Your task to perform on an android device: turn off improve location accuracy Image 0: 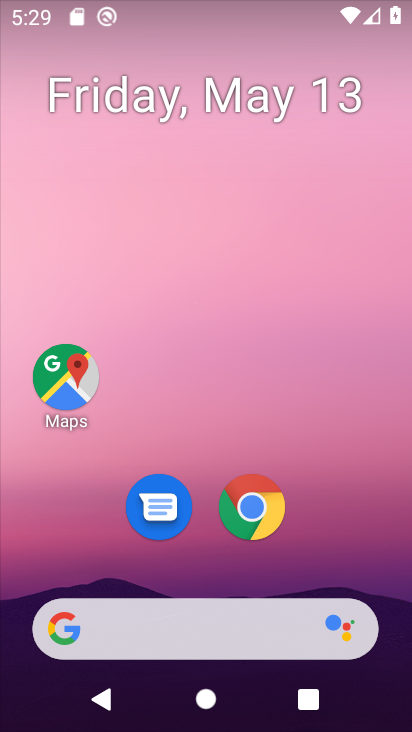
Step 0: drag from (317, 531) to (183, 87)
Your task to perform on an android device: turn off improve location accuracy Image 1: 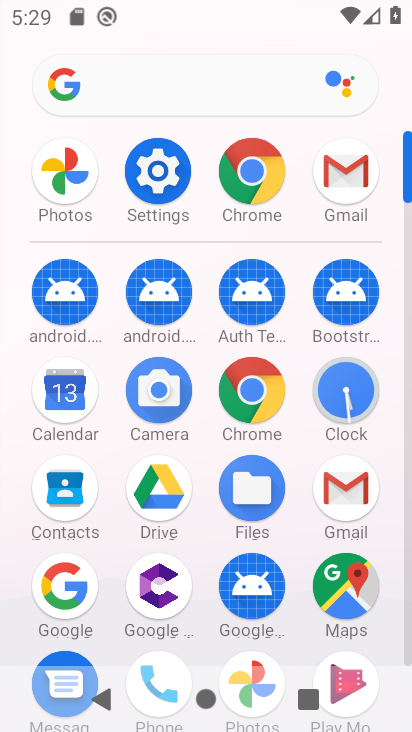
Step 1: click (159, 166)
Your task to perform on an android device: turn off improve location accuracy Image 2: 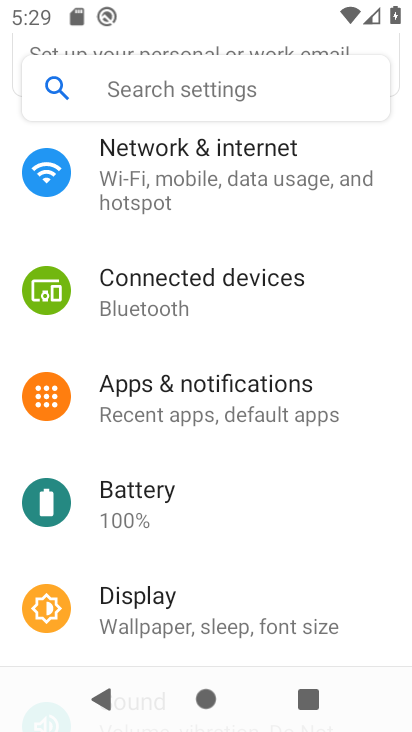
Step 2: drag from (232, 578) to (262, 125)
Your task to perform on an android device: turn off improve location accuracy Image 3: 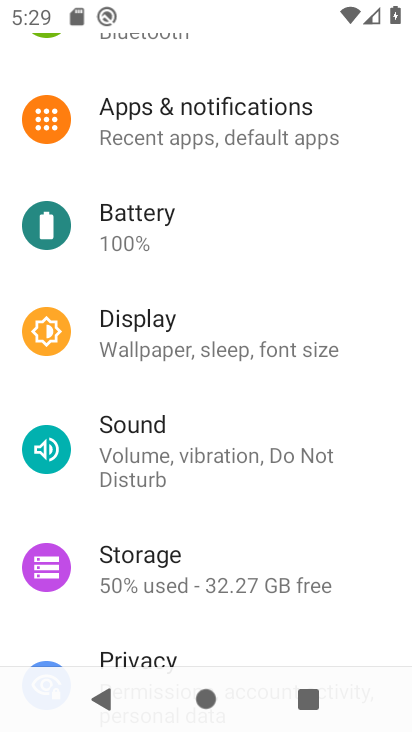
Step 3: drag from (224, 501) to (203, 138)
Your task to perform on an android device: turn off improve location accuracy Image 4: 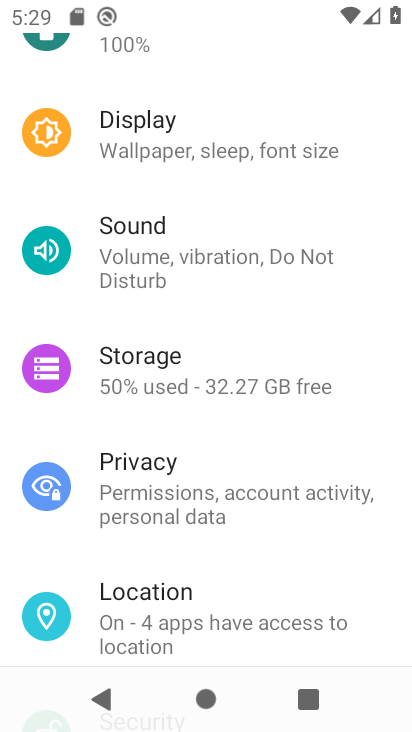
Step 4: click (229, 613)
Your task to perform on an android device: turn off improve location accuracy Image 5: 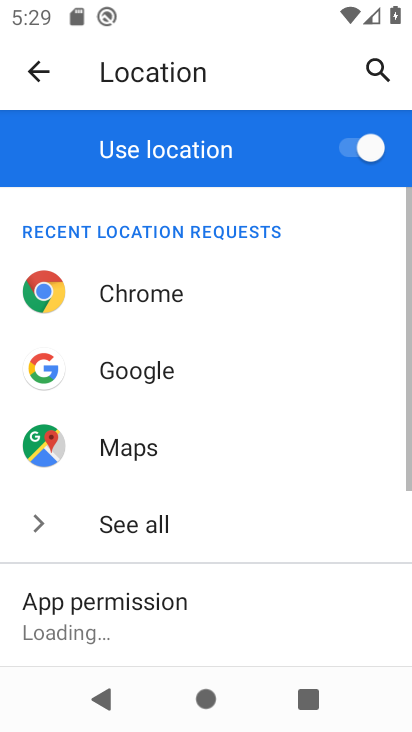
Step 5: drag from (220, 431) to (213, 107)
Your task to perform on an android device: turn off improve location accuracy Image 6: 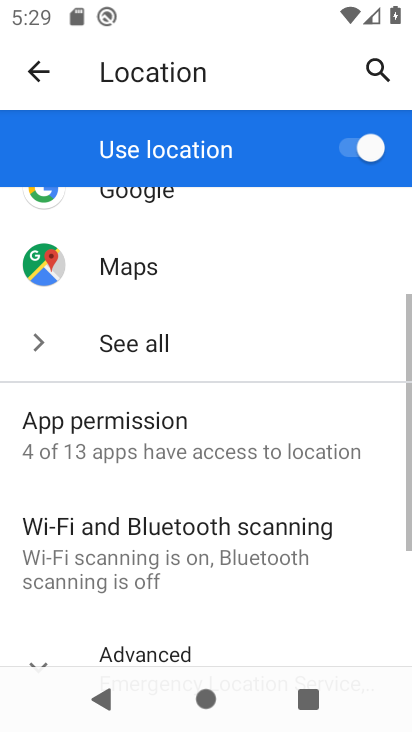
Step 6: drag from (227, 600) to (228, 248)
Your task to perform on an android device: turn off improve location accuracy Image 7: 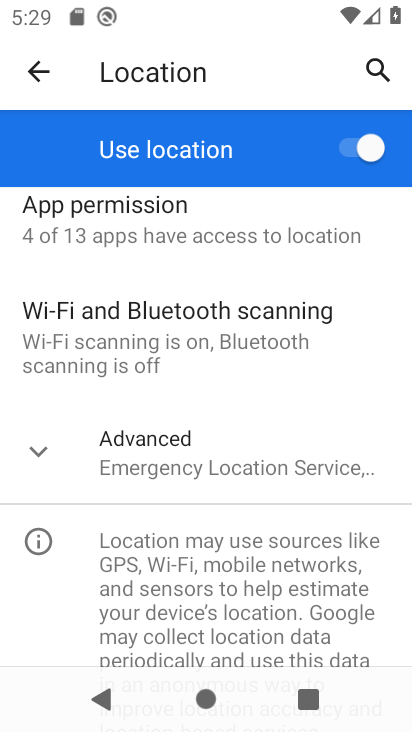
Step 7: click (159, 451)
Your task to perform on an android device: turn off improve location accuracy Image 8: 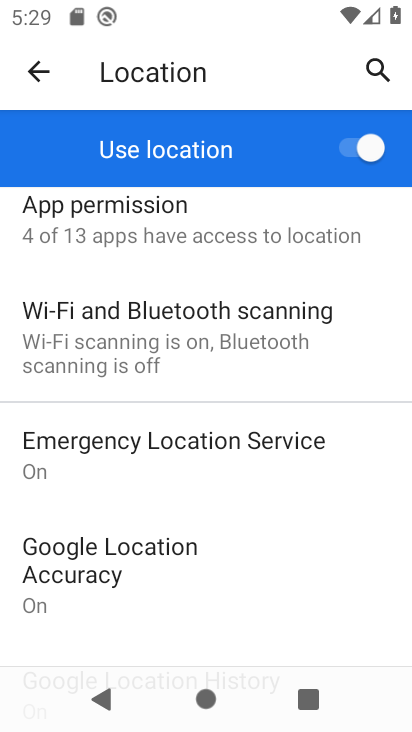
Step 8: drag from (248, 531) to (244, 369)
Your task to perform on an android device: turn off improve location accuracy Image 9: 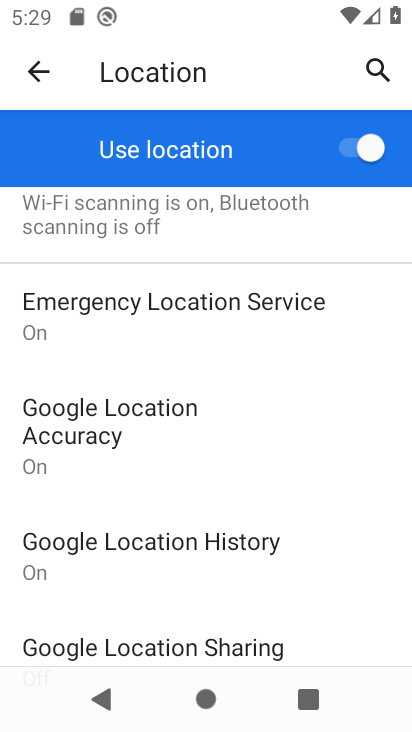
Step 9: click (135, 435)
Your task to perform on an android device: turn off improve location accuracy Image 10: 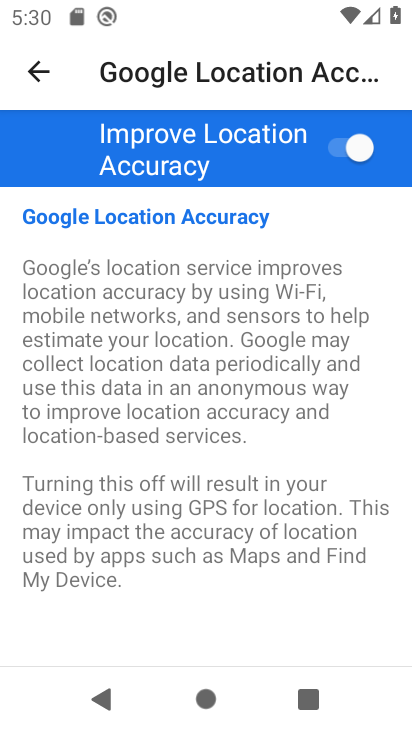
Step 10: click (347, 147)
Your task to perform on an android device: turn off improve location accuracy Image 11: 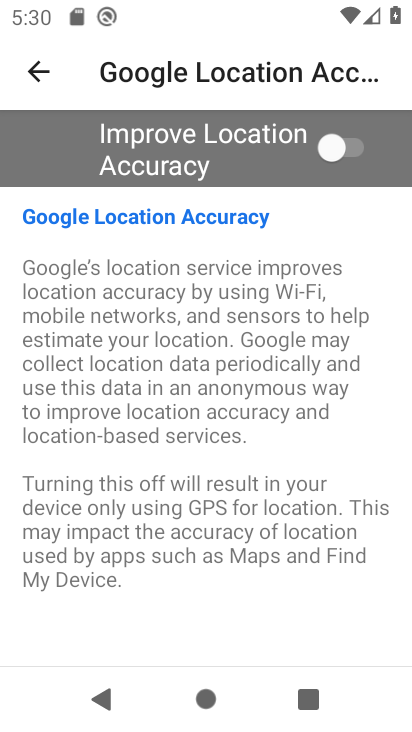
Step 11: task complete